Your task to perform on an android device: Open the stopwatch Image 0: 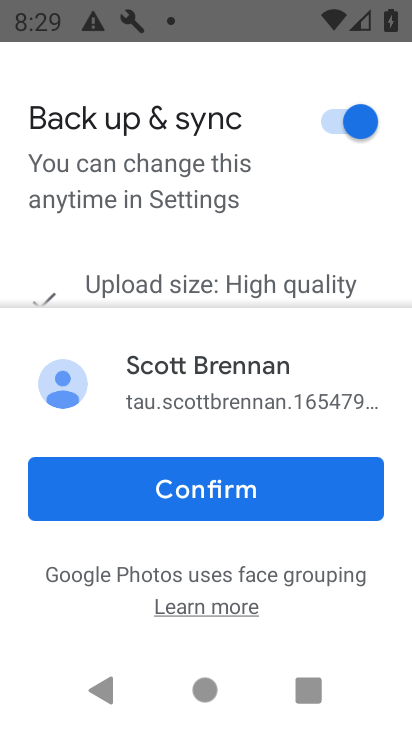
Step 0: press back button
Your task to perform on an android device: Open the stopwatch Image 1: 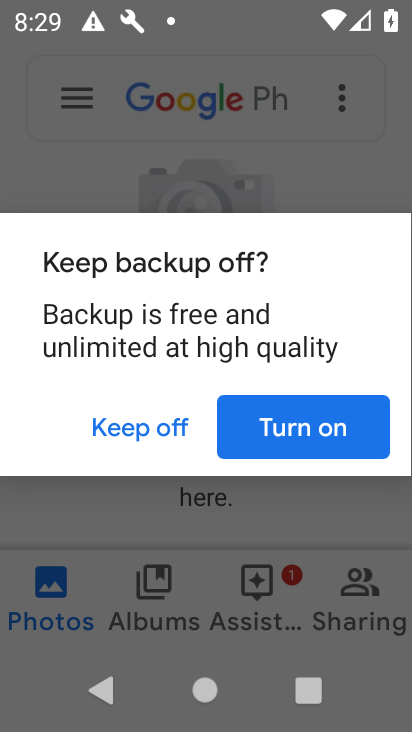
Step 1: press back button
Your task to perform on an android device: Open the stopwatch Image 2: 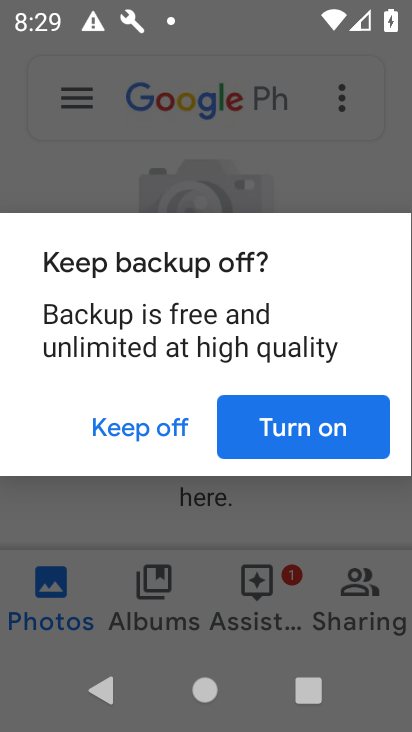
Step 2: click (122, 424)
Your task to perform on an android device: Open the stopwatch Image 3: 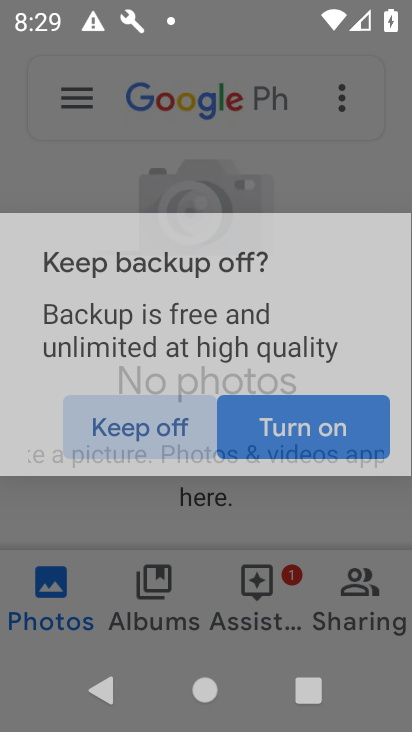
Step 3: click (123, 425)
Your task to perform on an android device: Open the stopwatch Image 4: 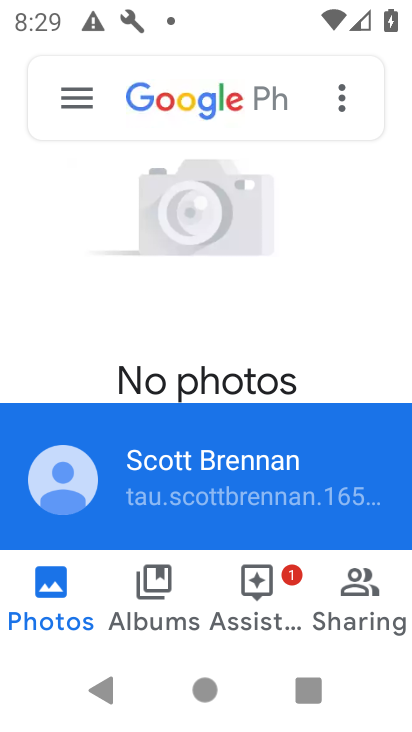
Step 4: click (123, 425)
Your task to perform on an android device: Open the stopwatch Image 5: 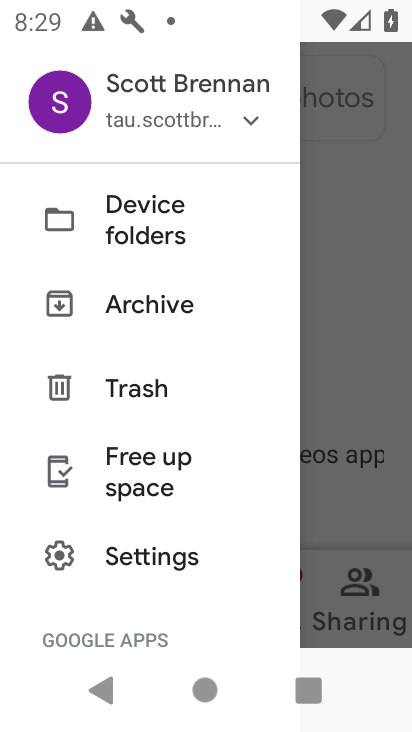
Step 5: press home button
Your task to perform on an android device: Open the stopwatch Image 6: 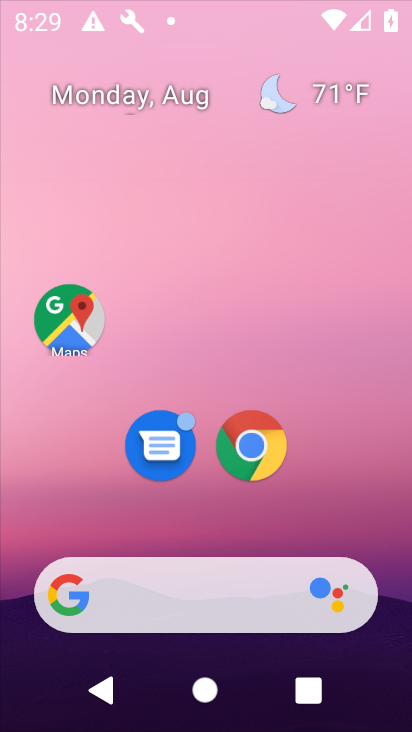
Step 6: click (325, 296)
Your task to perform on an android device: Open the stopwatch Image 7: 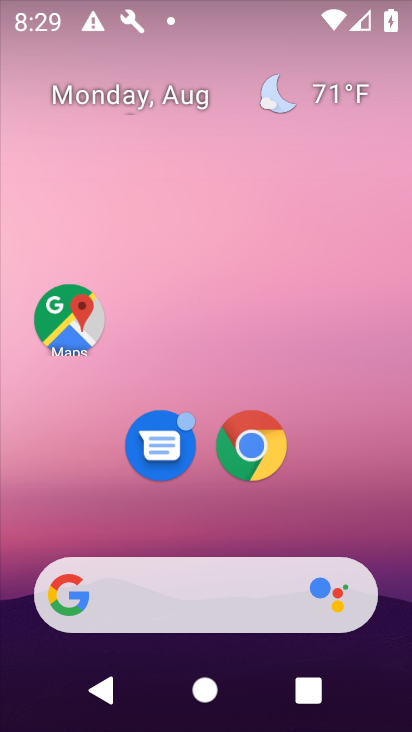
Step 7: drag from (205, 583) to (163, 14)
Your task to perform on an android device: Open the stopwatch Image 8: 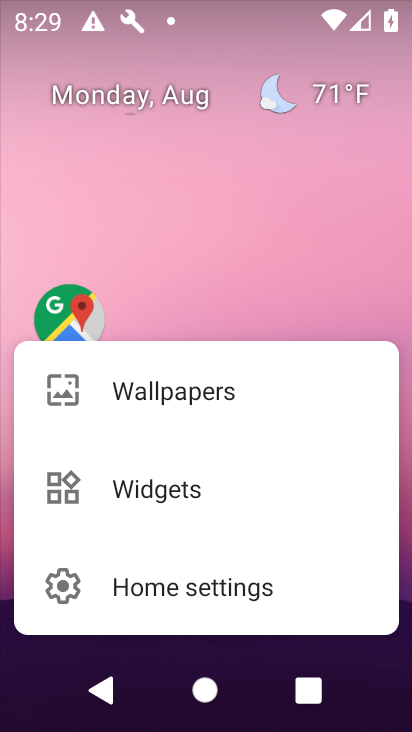
Step 8: drag from (211, 397) to (262, 77)
Your task to perform on an android device: Open the stopwatch Image 9: 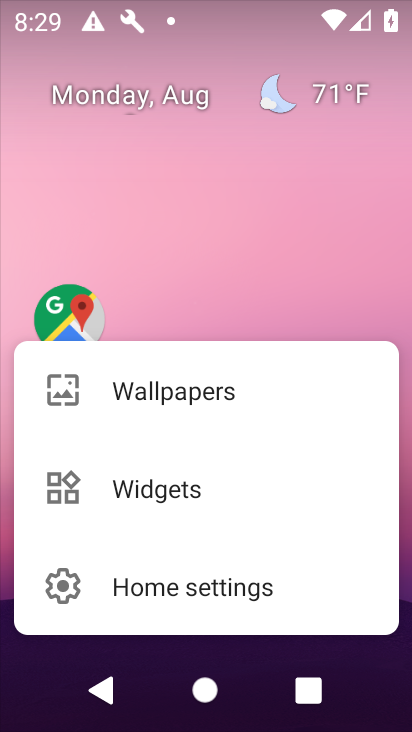
Step 9: drag from (220, 366) to (244, 67)
Your task to perform on an android device: Open the stopwatch Image 10: 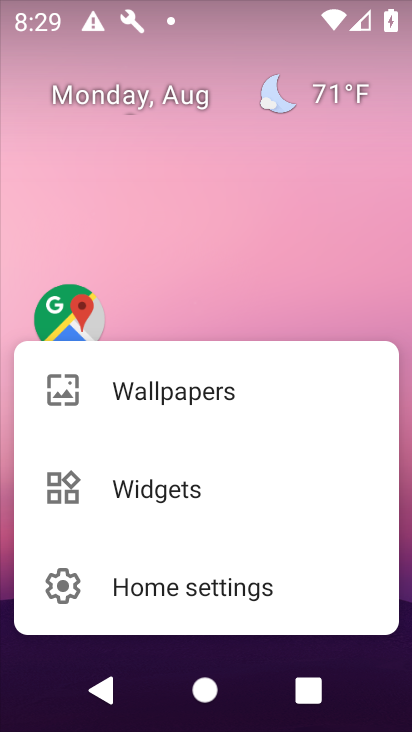
Step 10: drag from (238, 276) to (217, 118)
Your task to perform on an android device: Open the stopwatch Image 11: 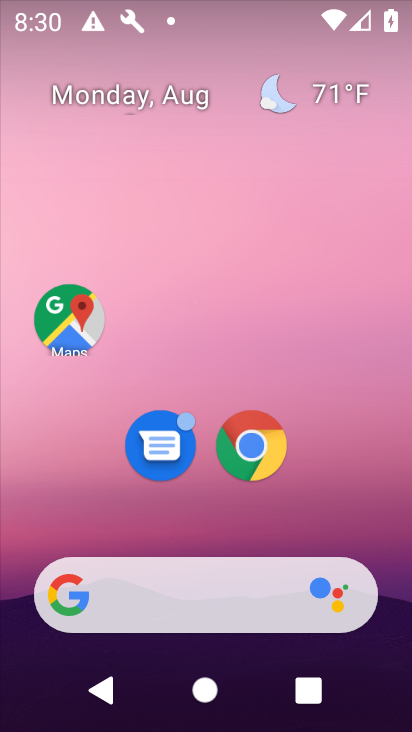
Step 11: click (186, 61)
Your task to perform on an android device: Open the stopwatch Image 12: 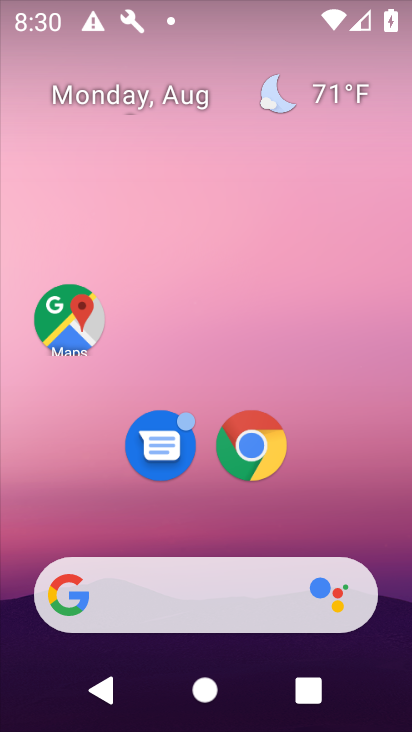
Step 12: drag from (98, 125) to (185, 93)
Your task to perform on an android device: Open the stopwatch Image 13: 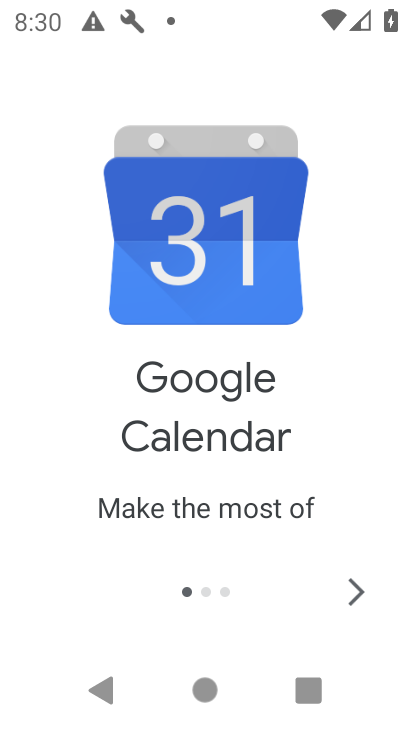
Step 13: click (361, 592)
Your task to perform on an android device: Open the stopwatch Image 14: 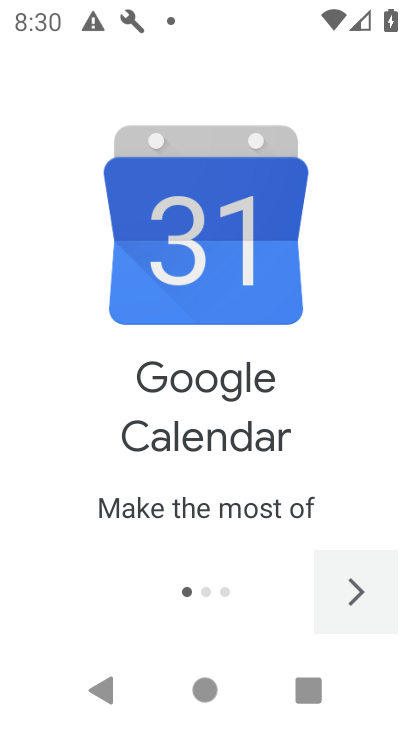
Step 14: click (357, 592)
Your task to perform on an android device: Open the stopwatch Image 15: 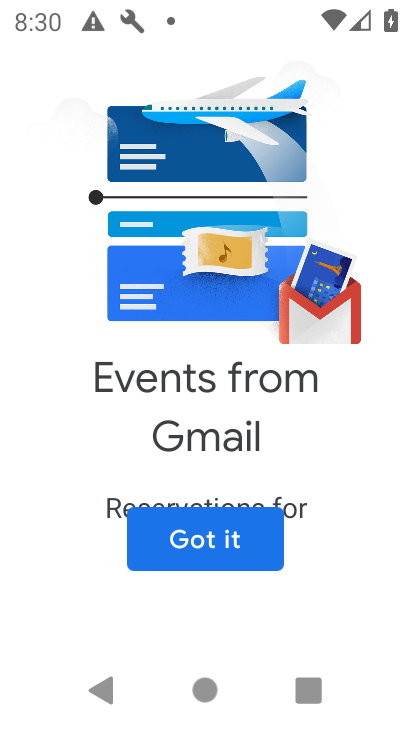
Step 15: click (355, 594)
Your task to perform on an android device: Open the stopwatch Image 16: 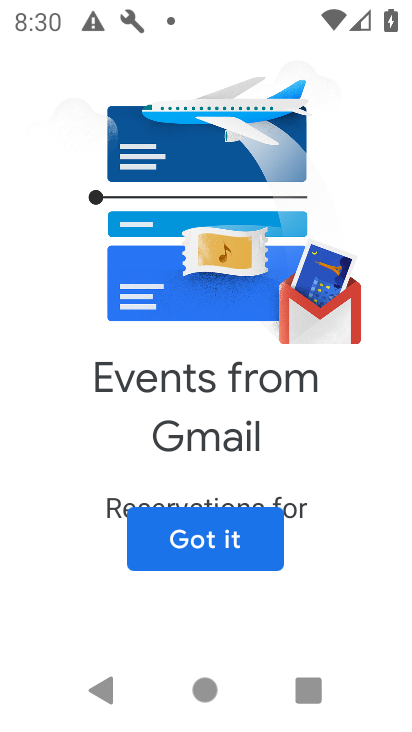
Step 16: click (193, 540)
Your task to perform on an android device: Open the stopwatch Image 17: 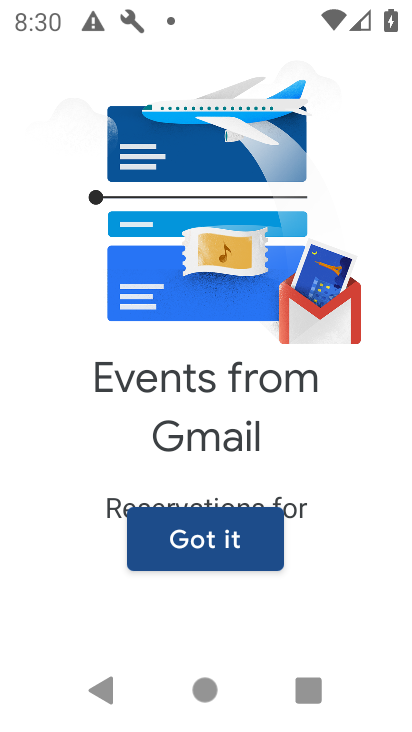
Step 17: click (207, 526)
Your task to perform on an android device: Open the stopwatch Image 18: 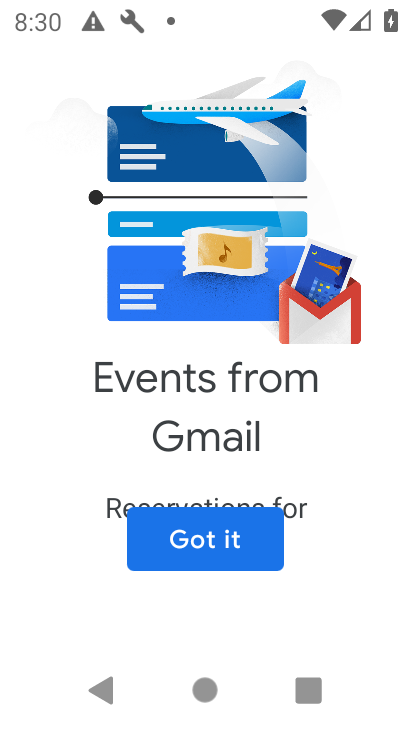
Step 18: click (207, 526)
Your task to perform on an android device: Open the stopwatch Image 19: 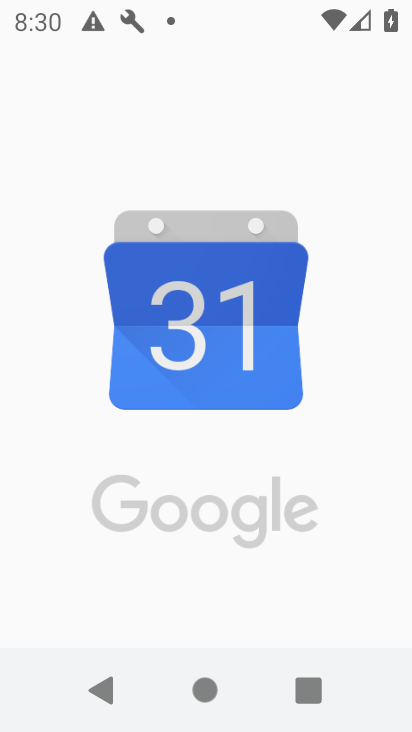
Step 19: click (292, 588)
Your task to perform on an android device: Open the stopwatch Image 20: 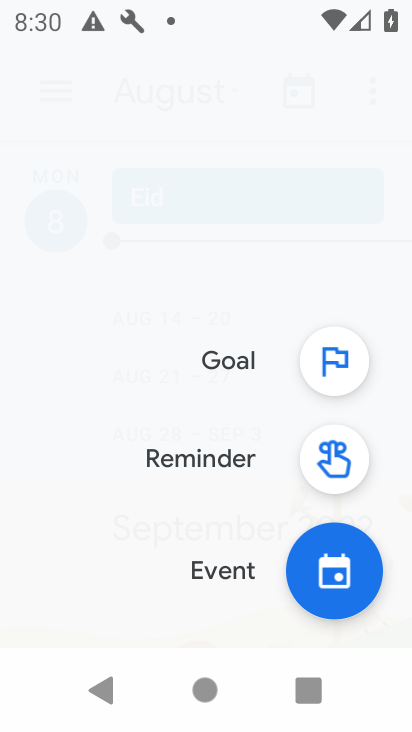
Step 20: task complete